Your task to perform on an android device: check battery use Image 0: 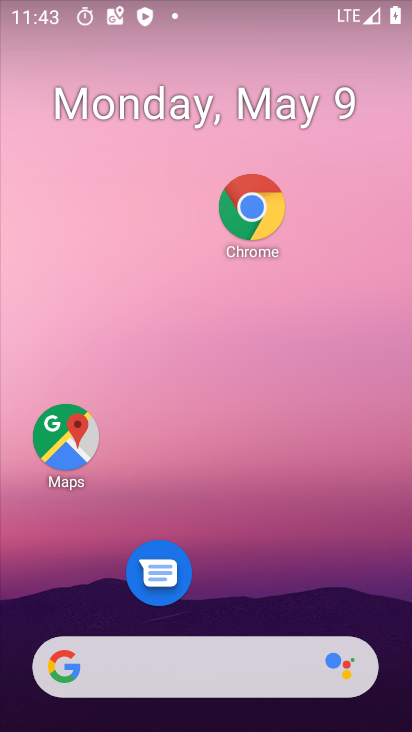
Step 0: drag from (219, 621) to (170, 103)
Your task to perform on an android device: check battery use Image 1: 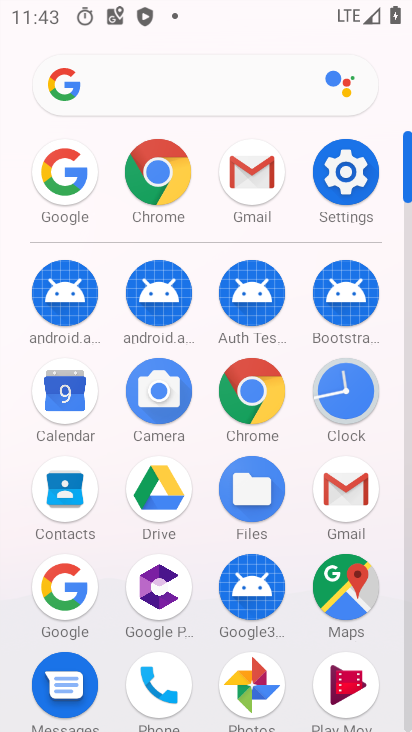
Step 1: drag from (215, 497) to (216, 139)
Your task to perform on an android device: check battery use Image 2: 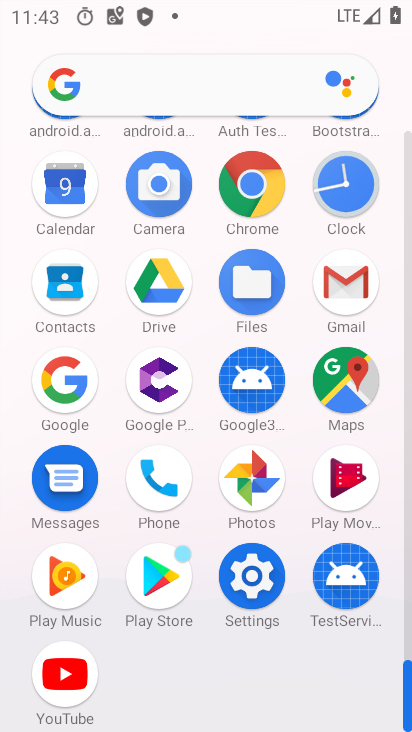
Step 2: drag from (267, 354) to (224, 573)
Your task to perform on an android device: check battery use Image 3: 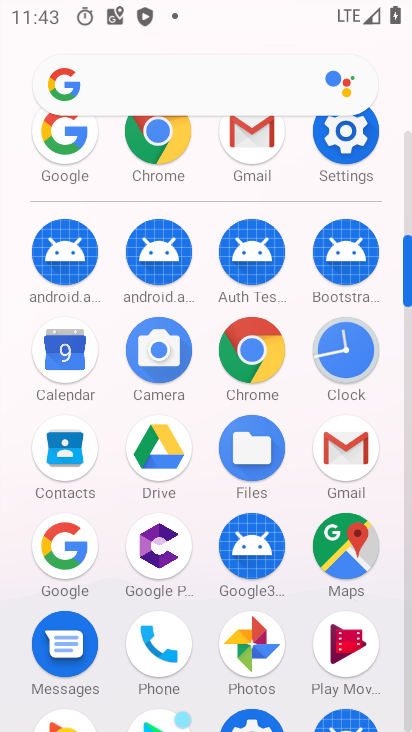
Step 3: drag from (257, 394) to (252, 520)
Your task to perform on an android device: check battery use Image 4: 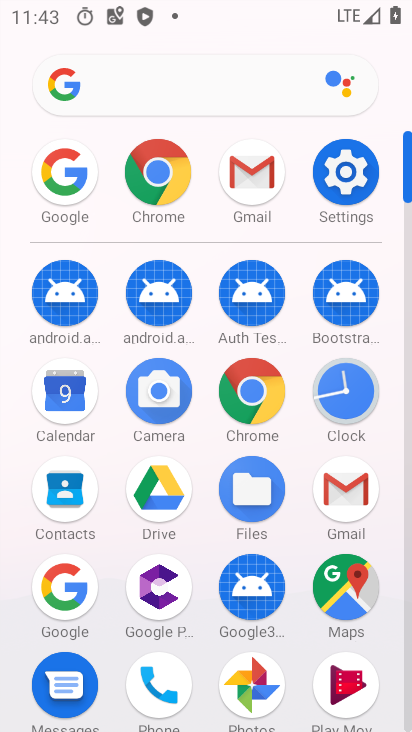
Step 4: click (344, 179)
Your task to perform on an android device: check battery use Image 5: 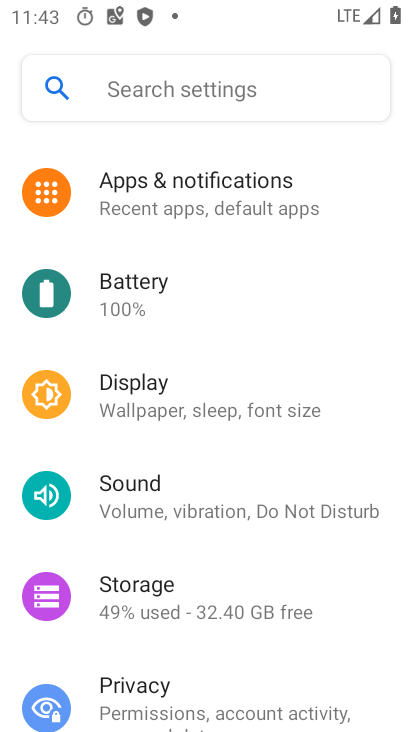
Step 5: click (286, 306)
Your task to perform on an android device: check battery use Image 6: 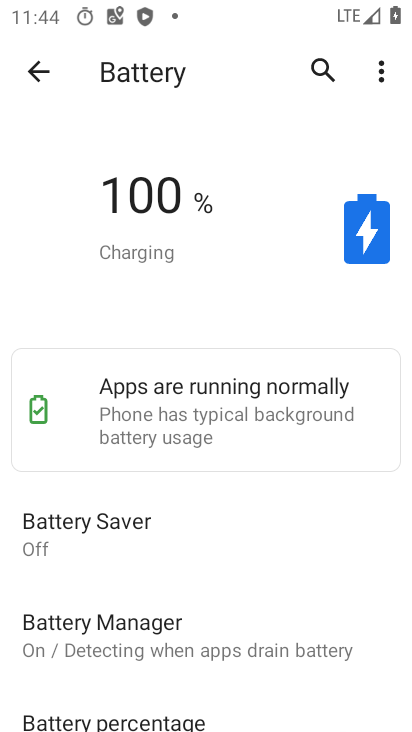
Step 6: task complete